Your task to perform on an android device: toggle javascript in the chrome app Image 0: 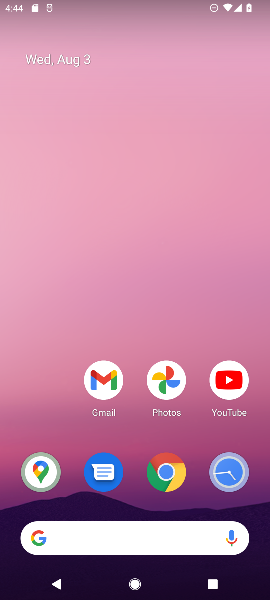
Step 0: drag from (215, 505) to (96, 59)
Your task to perform on an android device: toggle javascript in the chrome app Image 1: 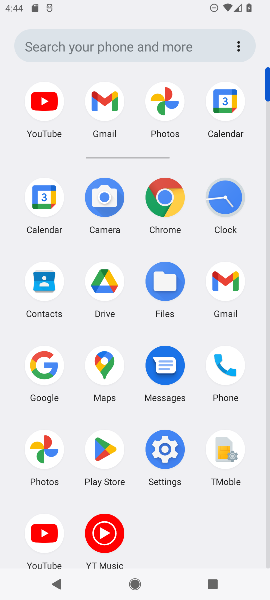
Step 1: click (157, 201)
Your task to perform on an android device: toggle javascript in the chrome app Image 2: 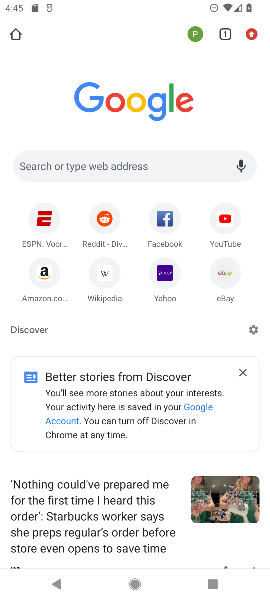
Step 2: click (246, 37)
Your task to perform on an android device: toggle javascript in the chrome app Image 3: 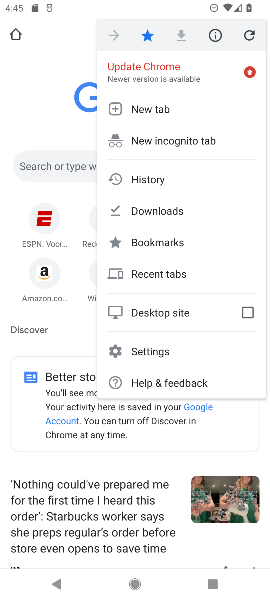
Step 3: click (149, 354)
Your task to perform on an android device: toggle javascript in the chrome app Image 4: 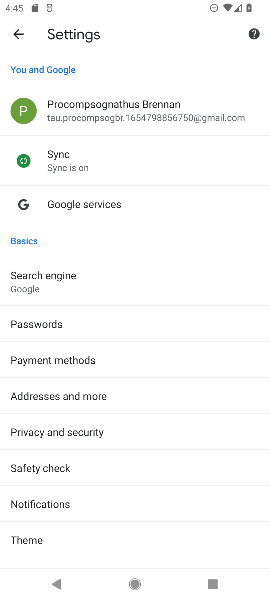
Step 4: drag from (55, 486) to (73, 256)
Your task to perform on an android device: toggle javascript in the chrome app Image 5: 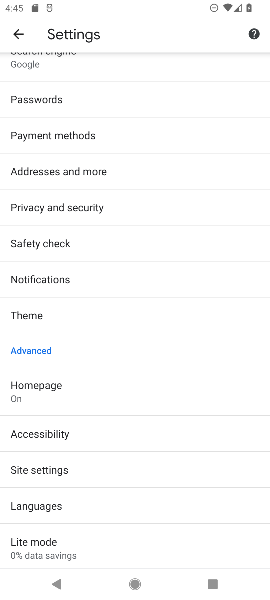
Step 5: click (36, 465)
Your task to perform on an android device: toggle javascript in the chrome app Image 6: 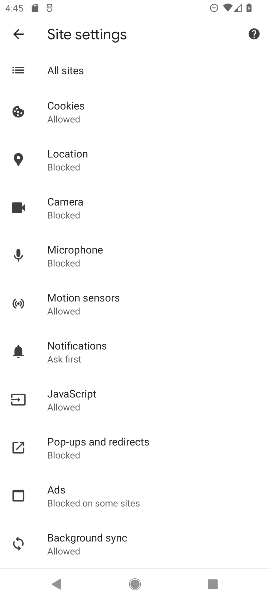
Step 6: click (33, 397)
Your task to perform on an android device: toggle javascript in the chrome app Image 7: 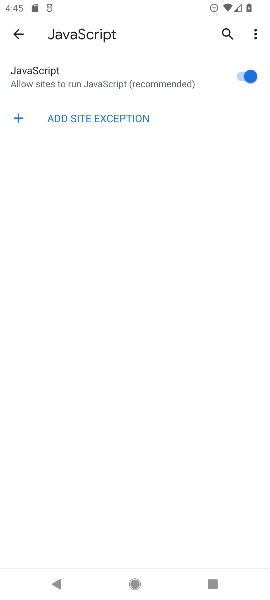
Step 7: click (251, 77)
Your task to perform on an android device: toggle javascript in the chrome app Image 8: 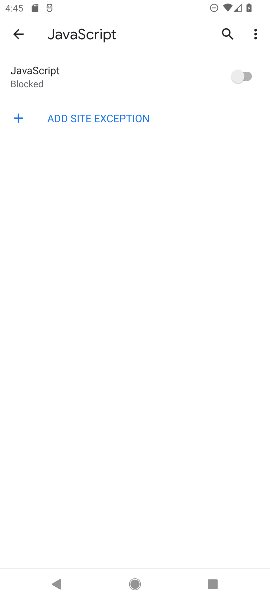
Step 8: task complete